Your task to perform on an android device: Go to Android settings Image 0: 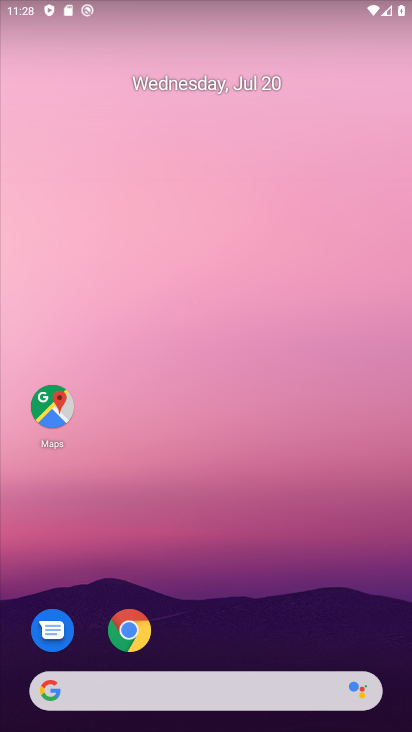
Step 0: drag from (193, 614) to (132, 34)
Your task to perform on an android device: Go to Android settings Image 1: 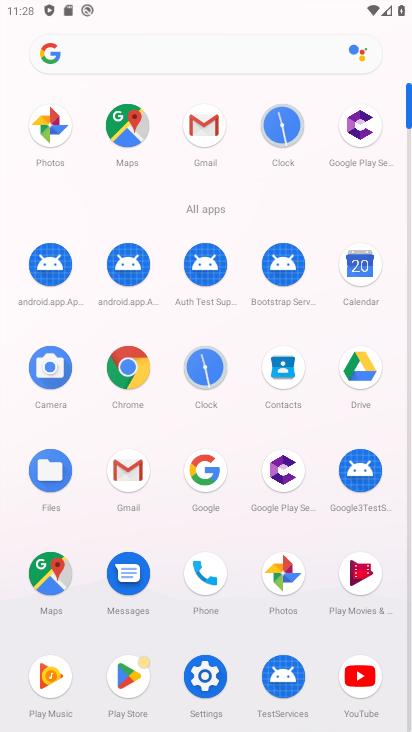
Step 1: click (210, 666)
Your task to perform on an android device: Go to Android settings Image 2: 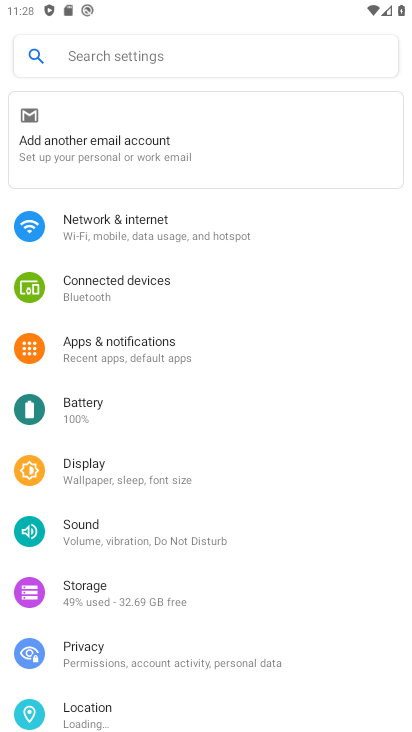
Step 2: drag from (113, 599) to (306, 25)
Your task to perform on an android device: Go to Android settings Image 3: 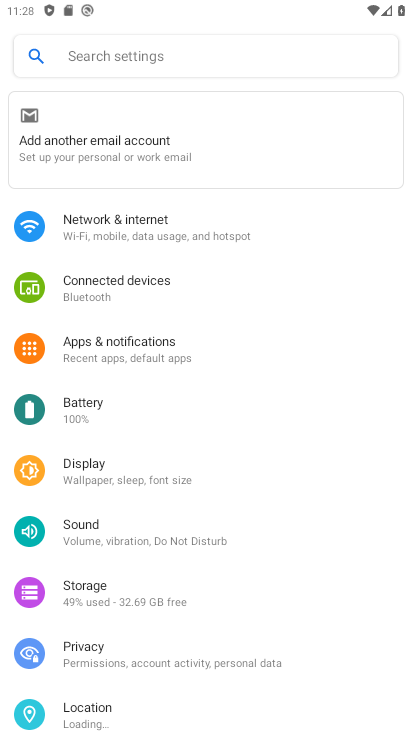
Step 3: drag from (120, 672) to (233, 307)
Your task to perform on an android device: Go to Android settings Image 4: 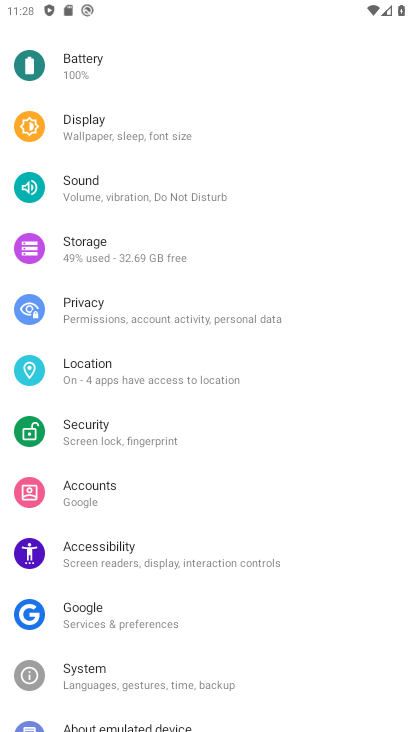
Step 4: drag from (186, 543) to (252, 159)
Your task to perform on an android device: Go to Android settings Image 5: 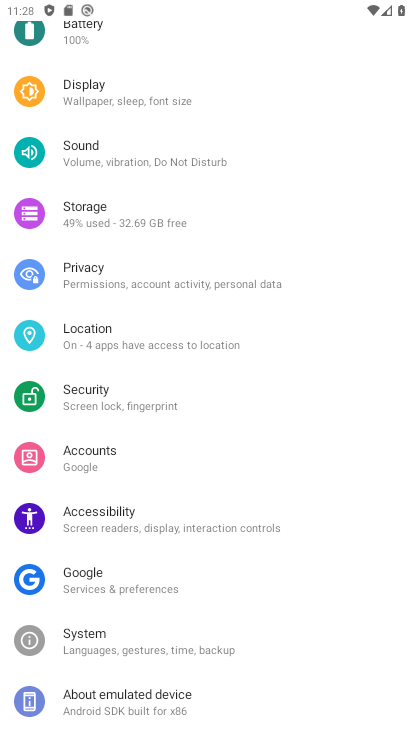
Step 5: drag from (193, 592) to (265, 117)
Your task to perform on an android device: Go to Android settings Image 6: 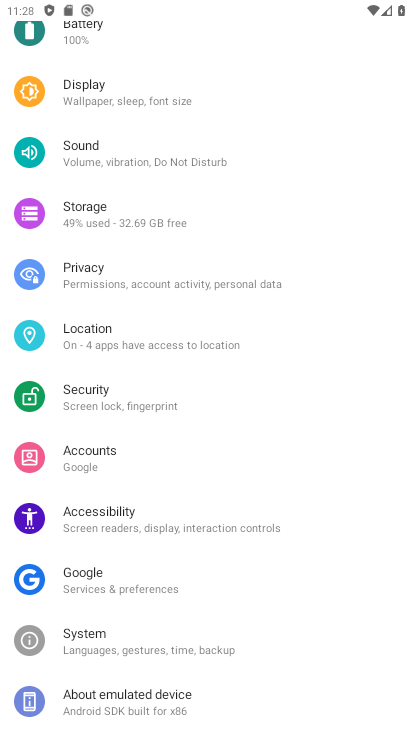
Step 6: click (177, 688)
Your task to perform on an android device: Go to Android settings Image 7: 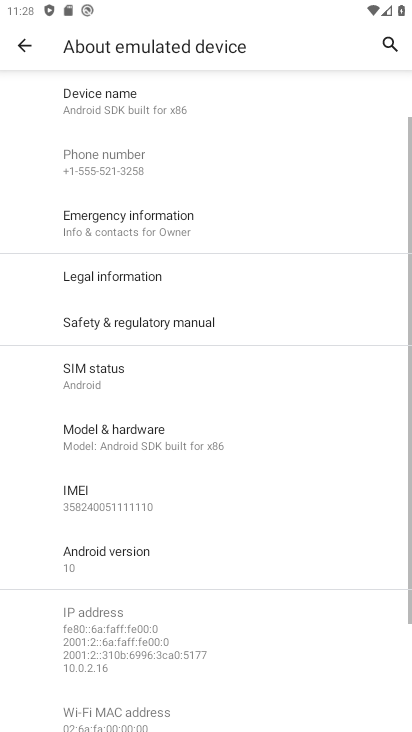
Step 7: drag from (215, 451) to (306, 308)
Your task to perform on an android device: Go to Android settings Image 8: 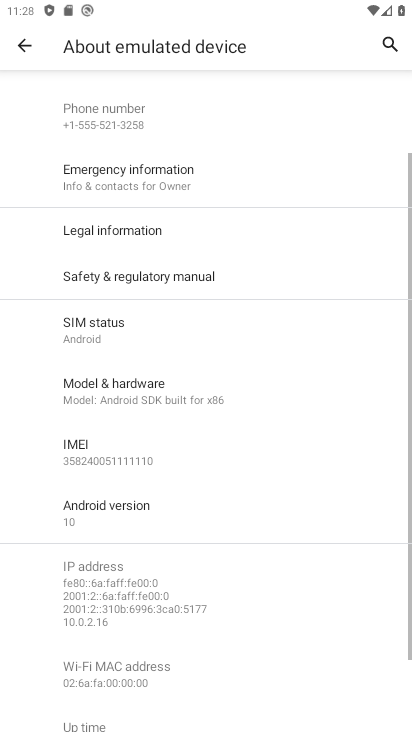
Step 8: click (147, 555)
Your task to perform on an android device: Go to Android settings Image 9: 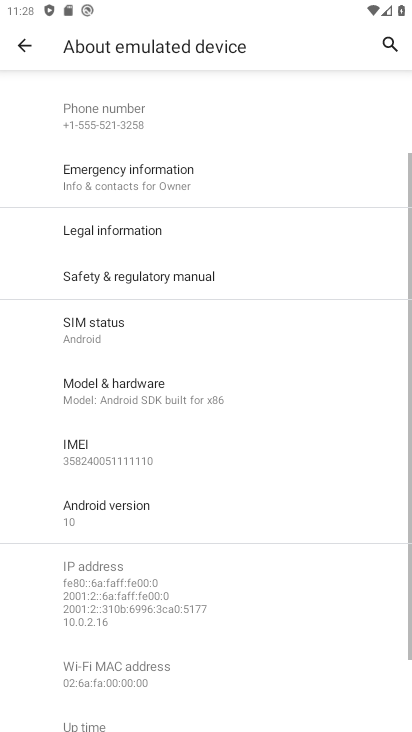
Step 9: click (124, 516)
Your task to perform on an android device: Go to Android settings Image 10: 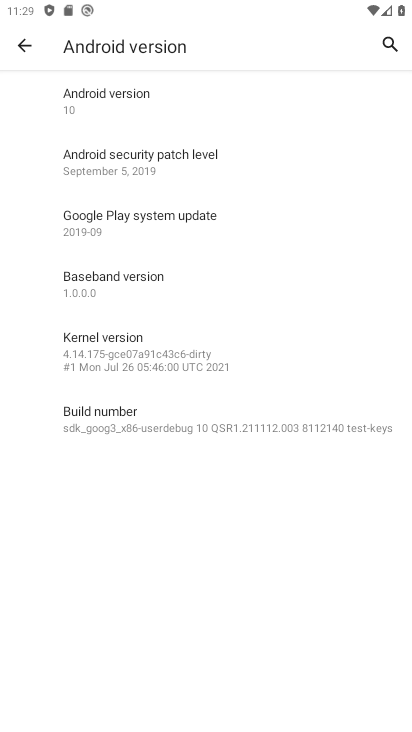
Step 10: click (182, 77)
Your task to perform on an android device: Go to Android settings Image 11: 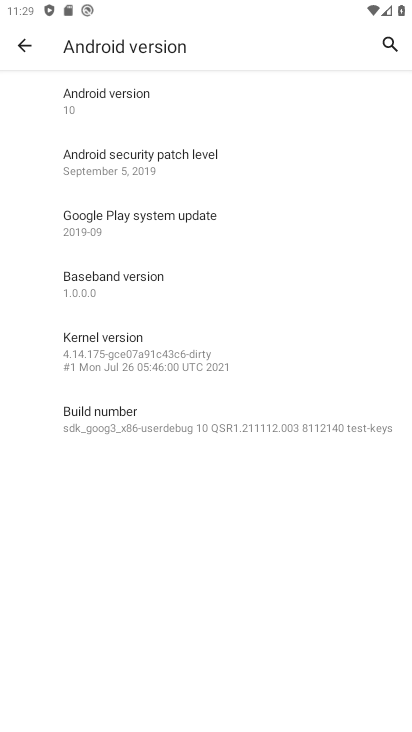
Step 11: click (114, 106)
Your task to perform on an android device: Go to Android settings Image 12: 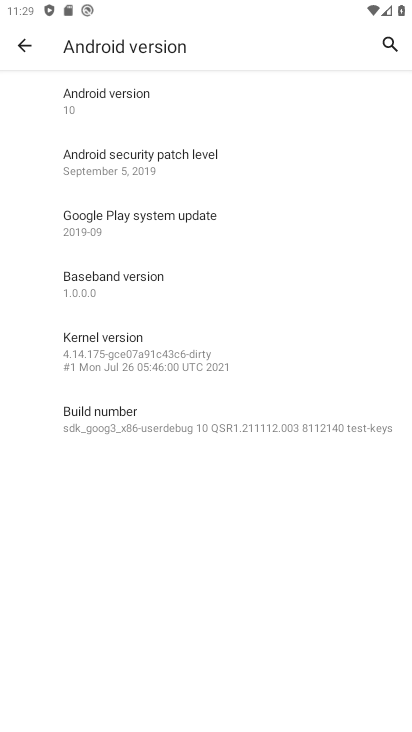
Step 12: task complete